Your task to perform on an android device: install app "Truecaller" Image 0: 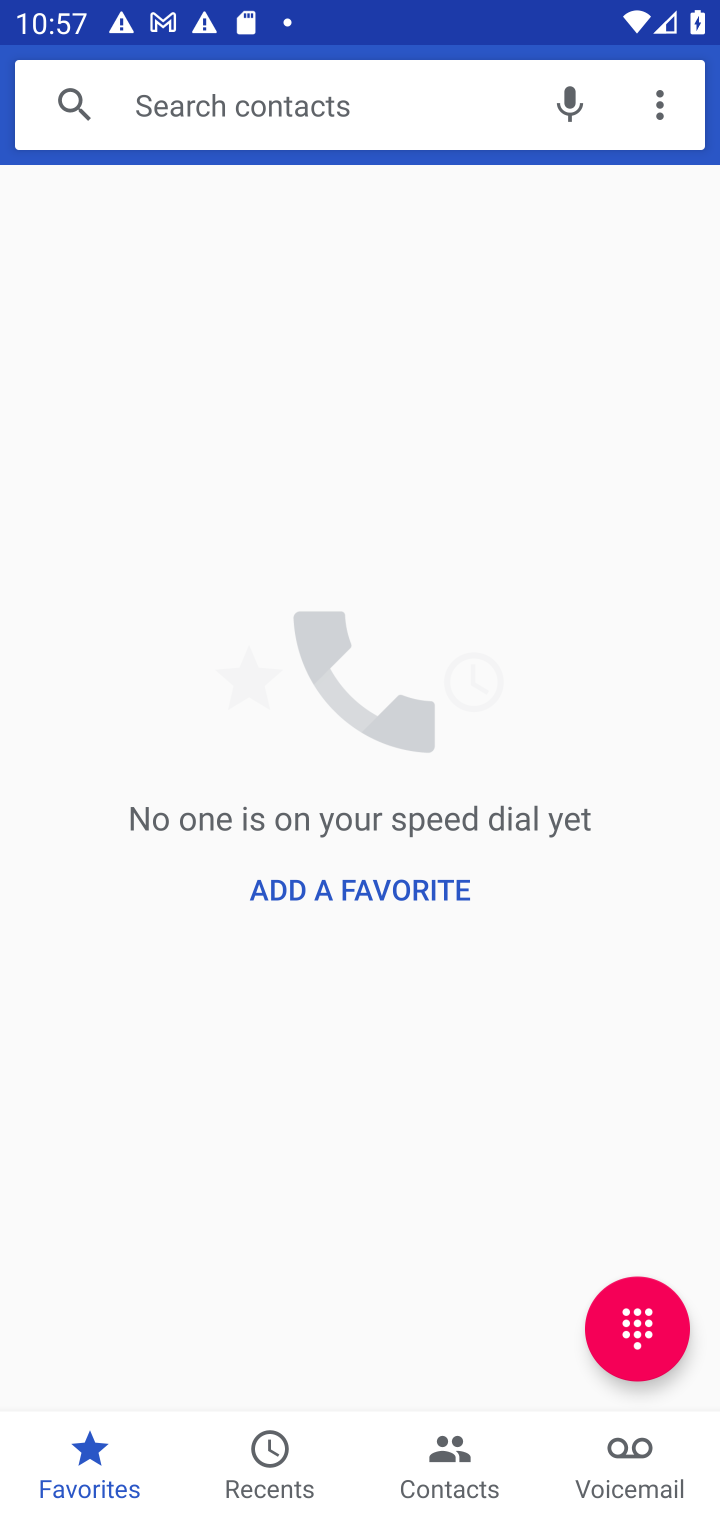
Step 0: press home button
Your task to perform on an android device: install app "Truecaller" Image 1: 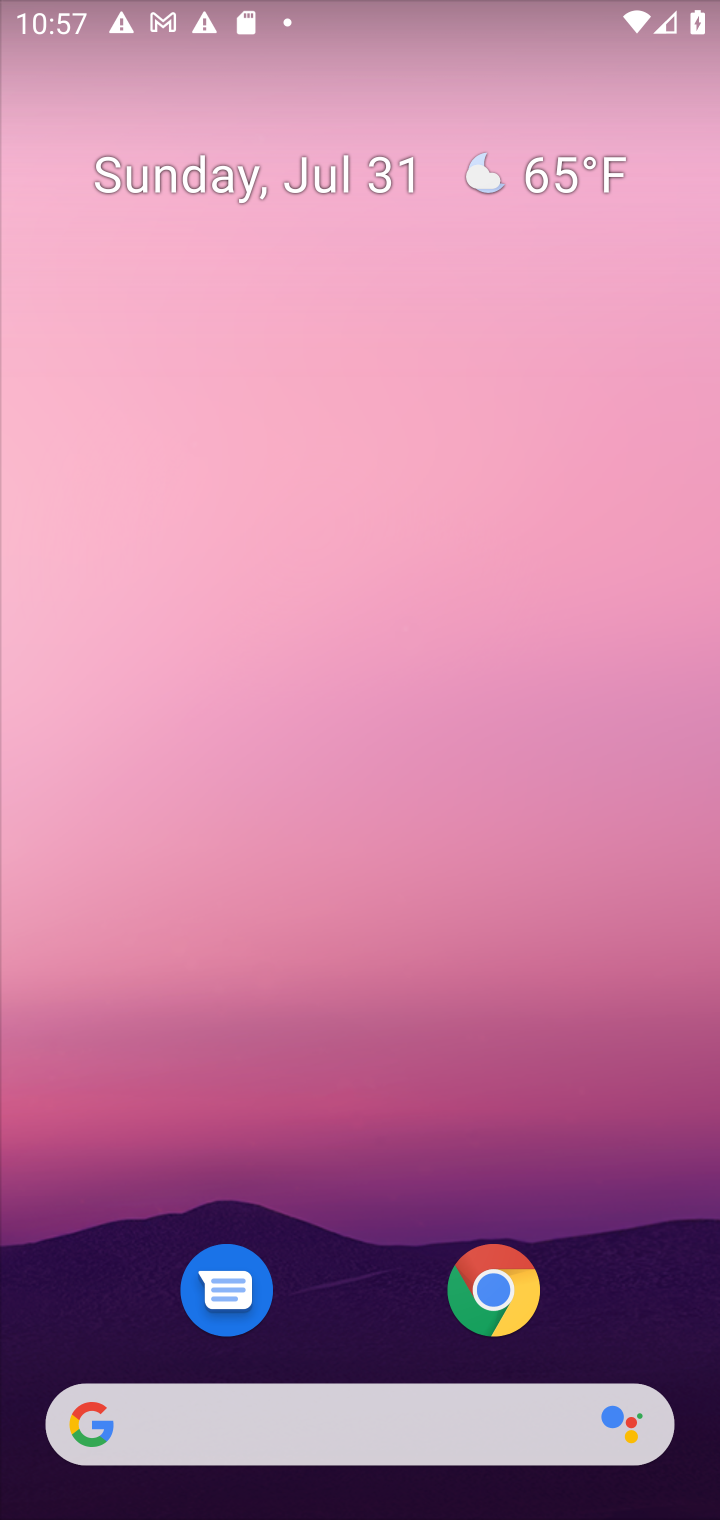
Step 1: drag from (606, 1028) to (592, 84)
Your task to perform on an android device: install app "Truecaller" Image 2: 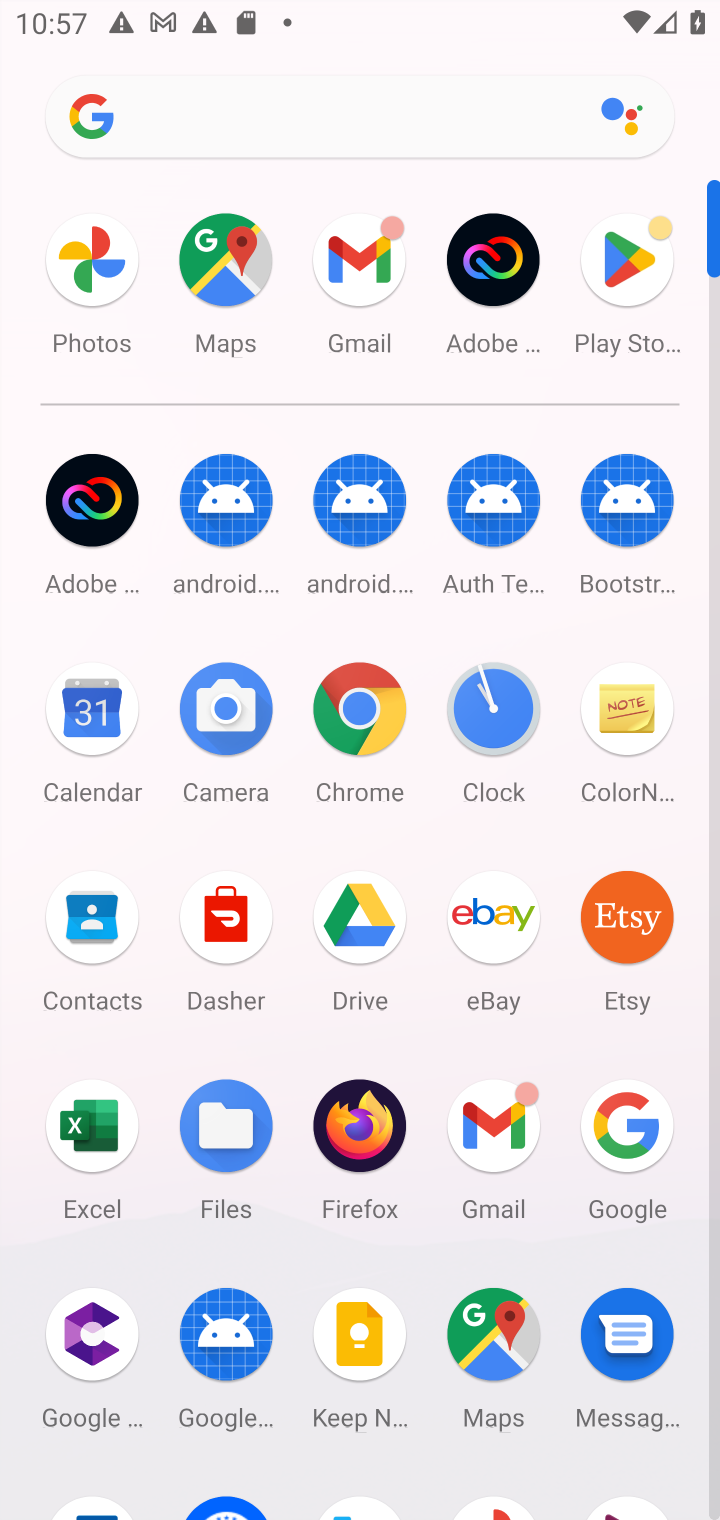
Step 2: click (640, 256)
Your task to perform on an android device: install app "Truecaller" Image 3: 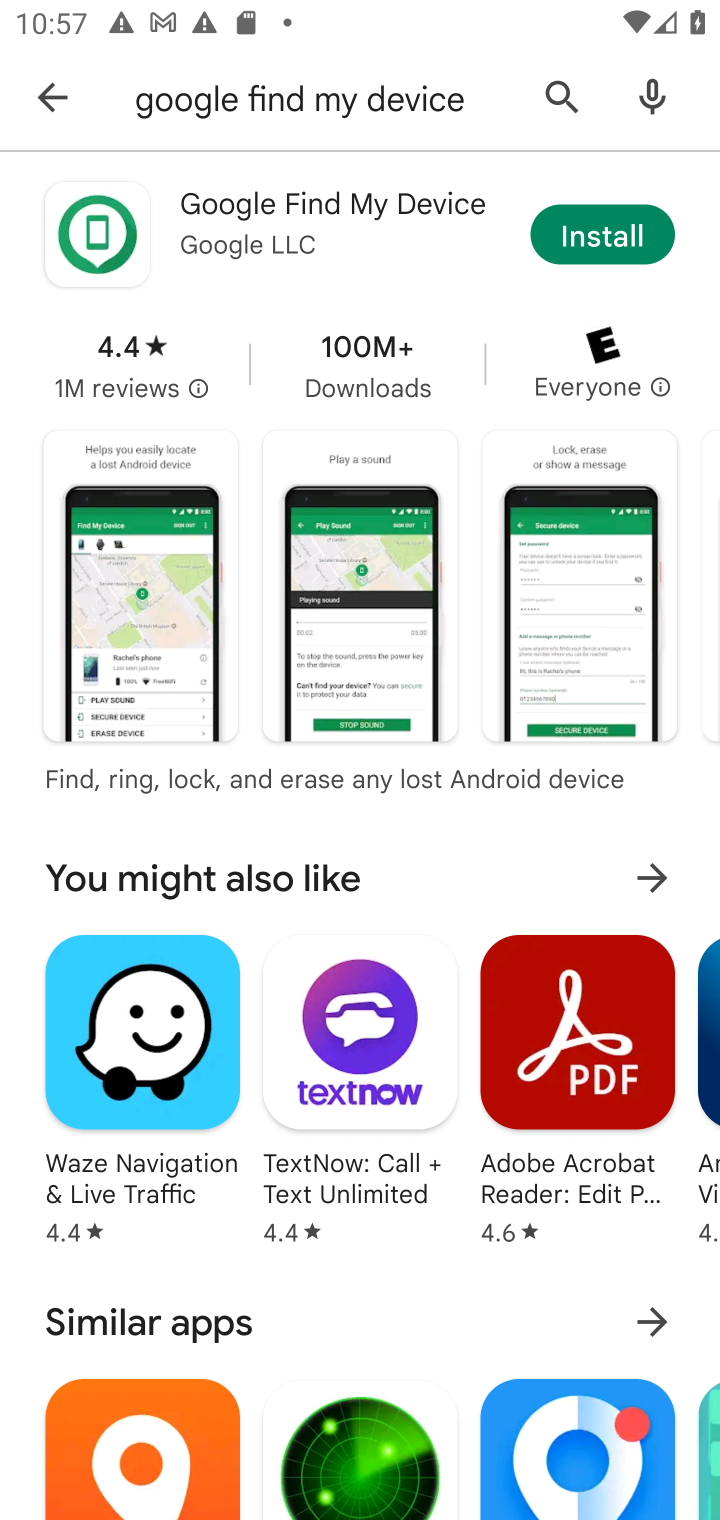
Step 3: click (557, 90)
Your task to perform on an android device: install app "Truecaller" Image 4: 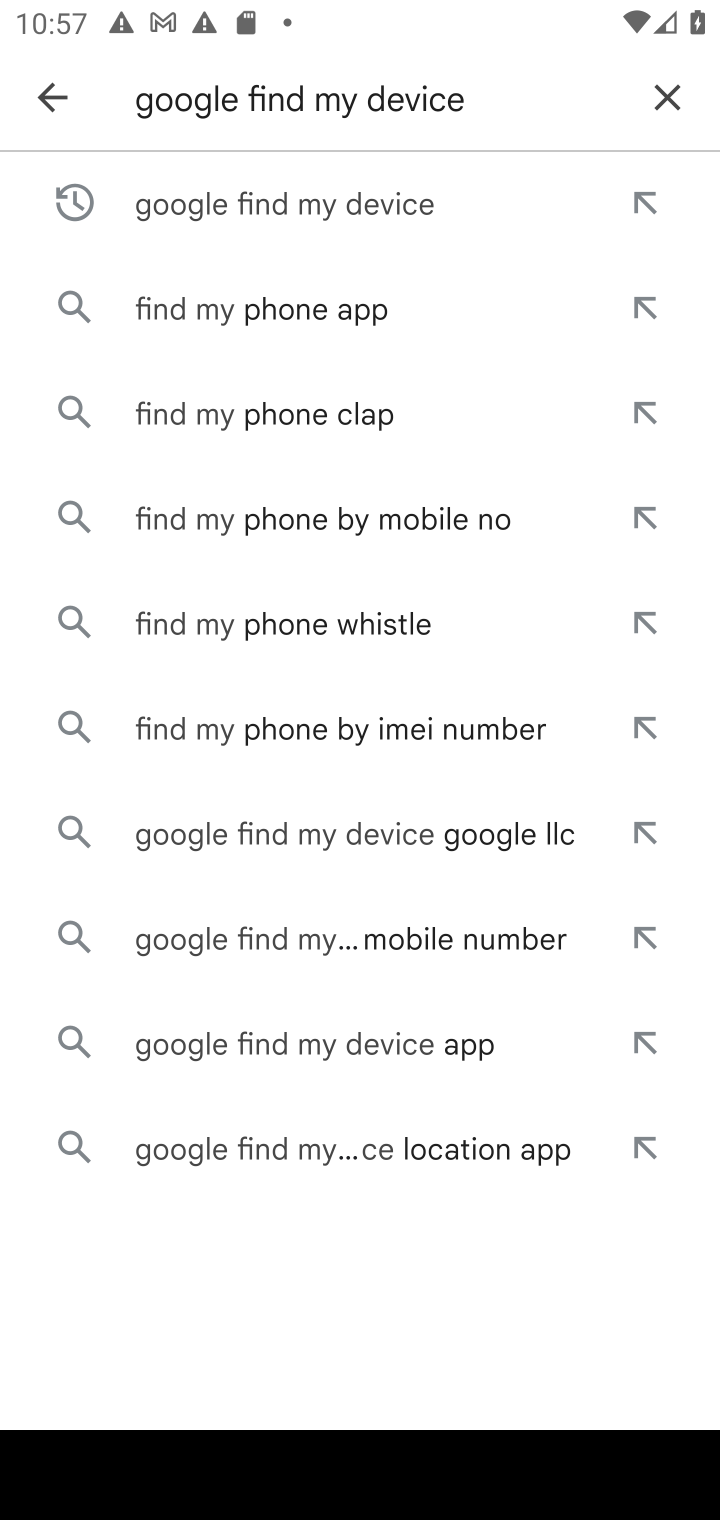
Step 4: click (665, 91)
Your task to perform on an android device: install app "Truecaller" Image 5: 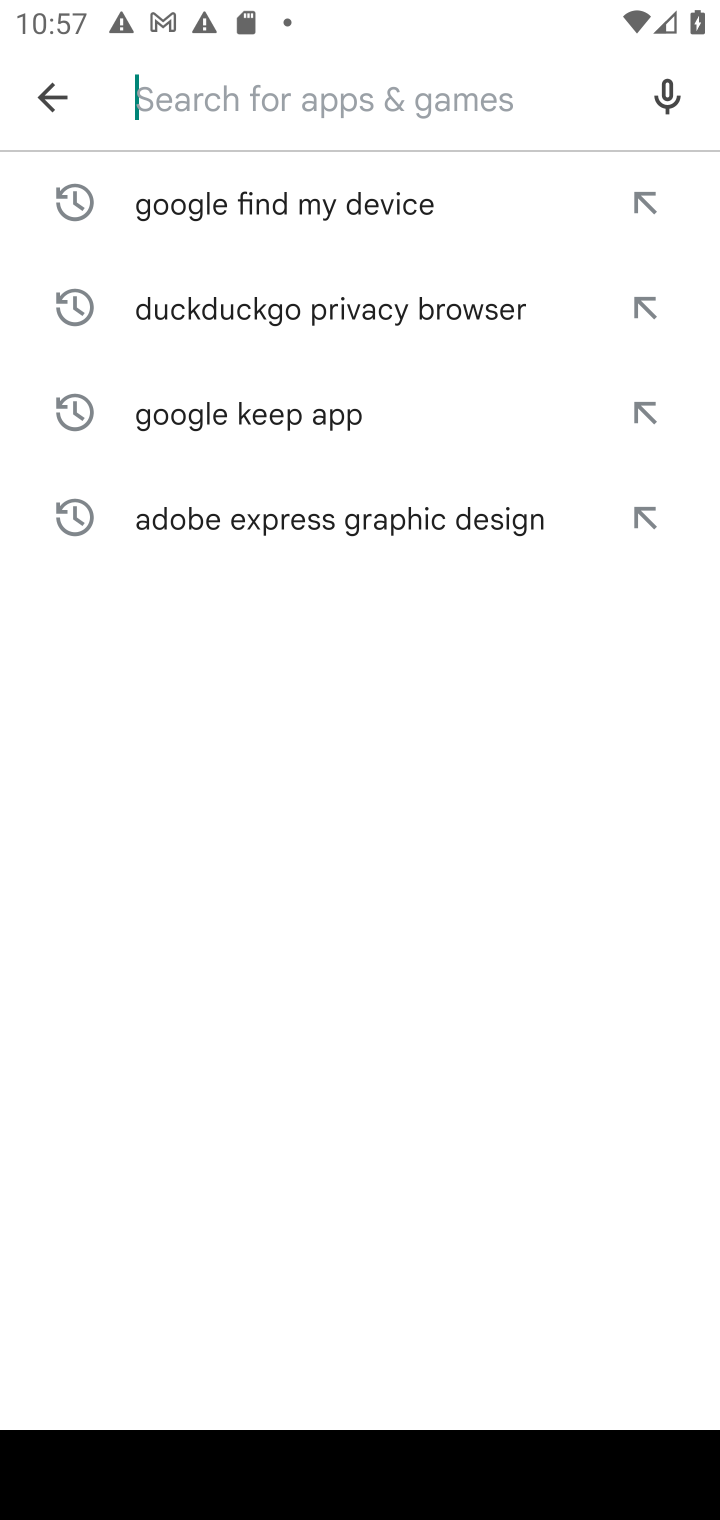
Step 5: type "truecaller"
Your task to perform on an android device: install app "Truecaller" Image 6: 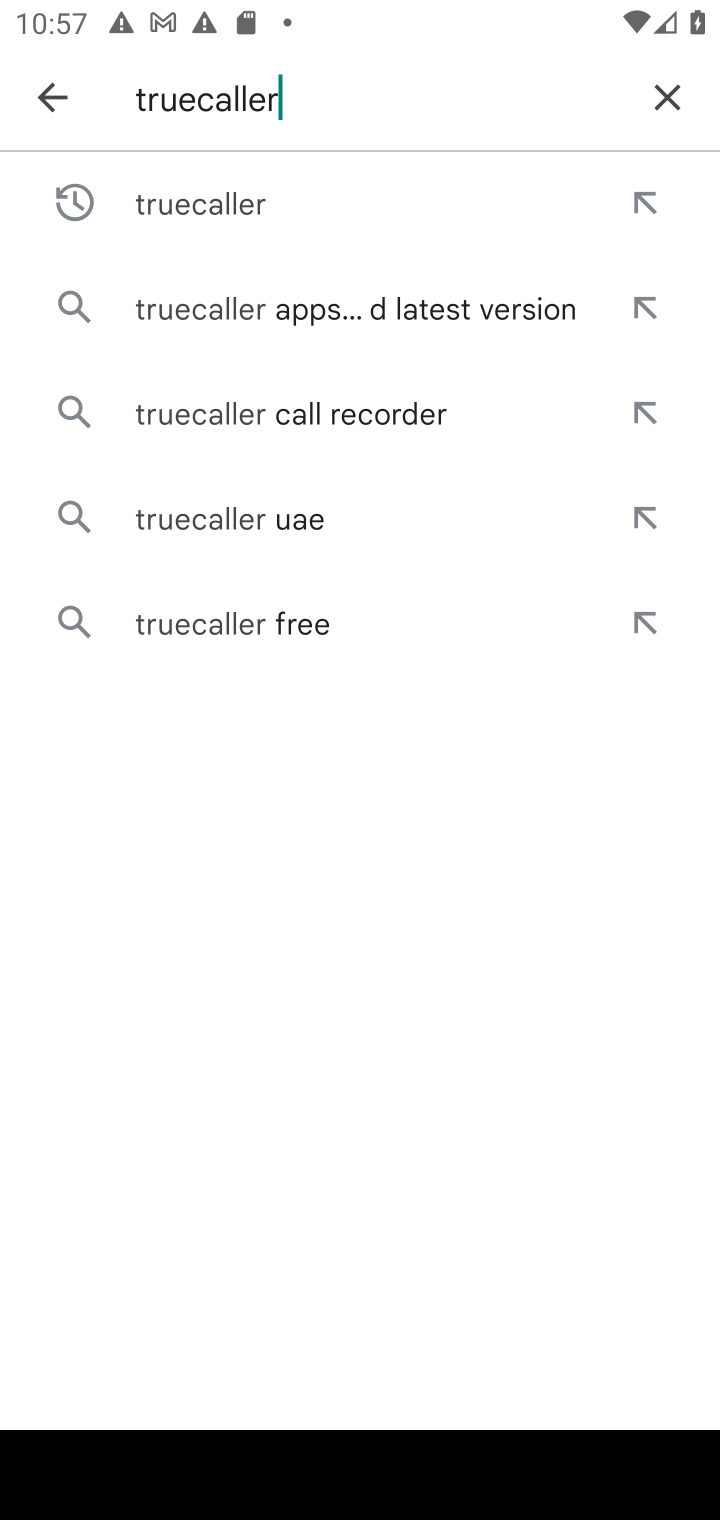
Step 6: click (313, 187)
Your task to perform on an android device: install app "Truecaller" Image 7: 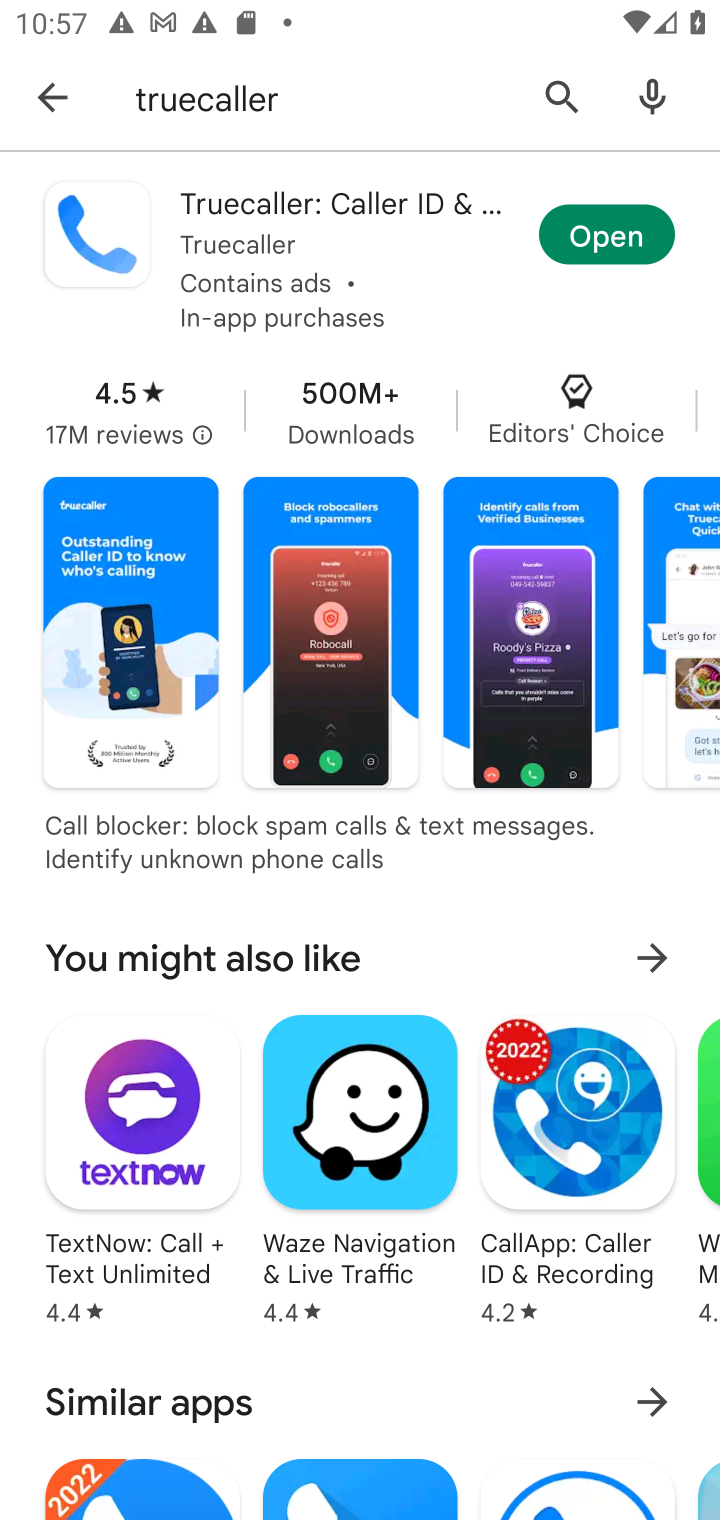
Step 7: task complete